Your task to perform on an android device: empty trash in google photos Image 0: 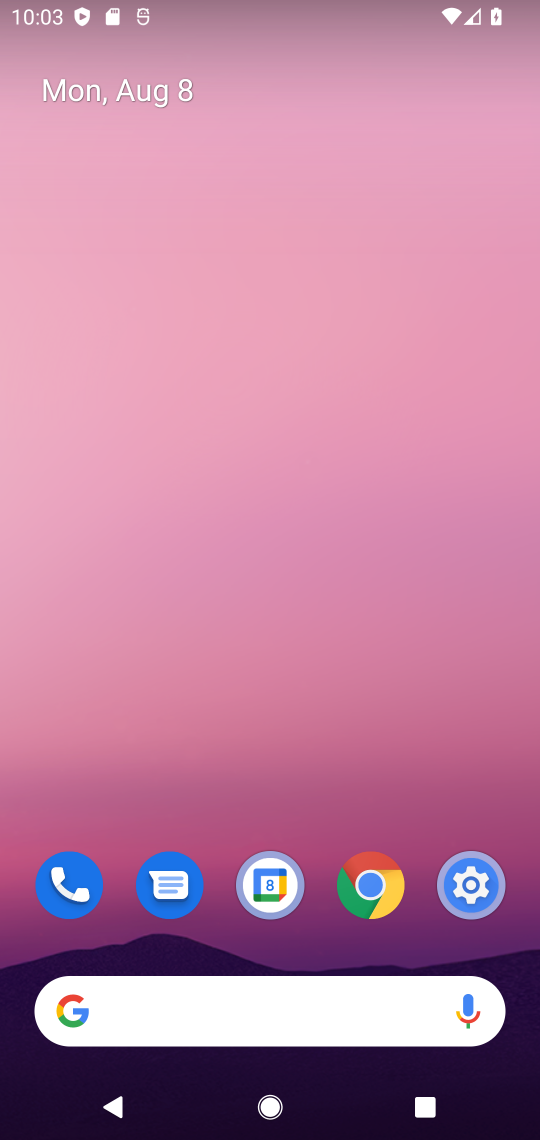
Step 0: drag from (199, 793) to (373, 314)
Your task to perform on an android device: empty trash in google photos Image 1: 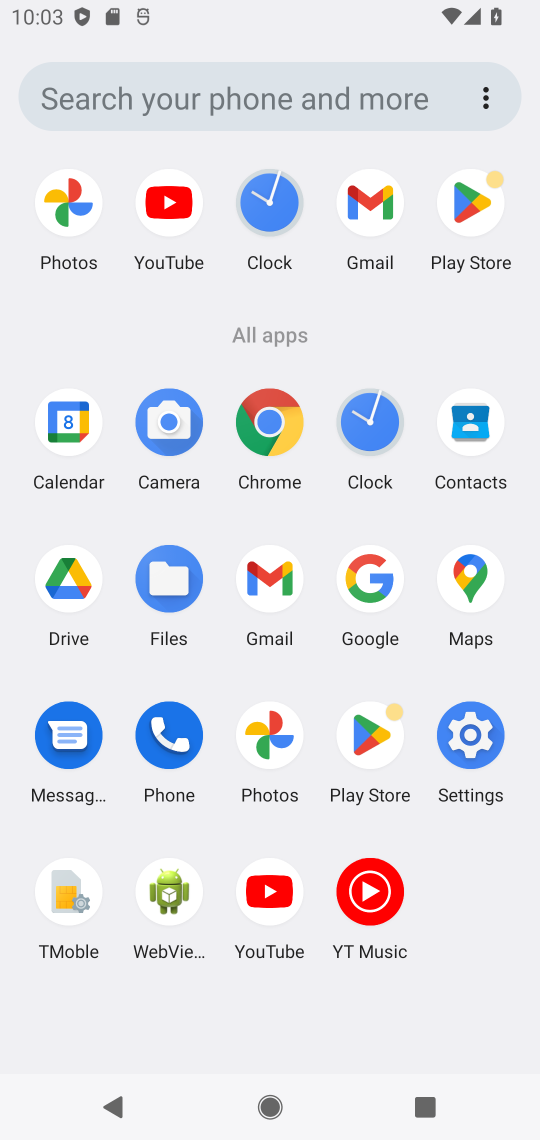
Step 1: click (92, 210)
Your task to perform on an android device: empty trash in google photos Image 2: 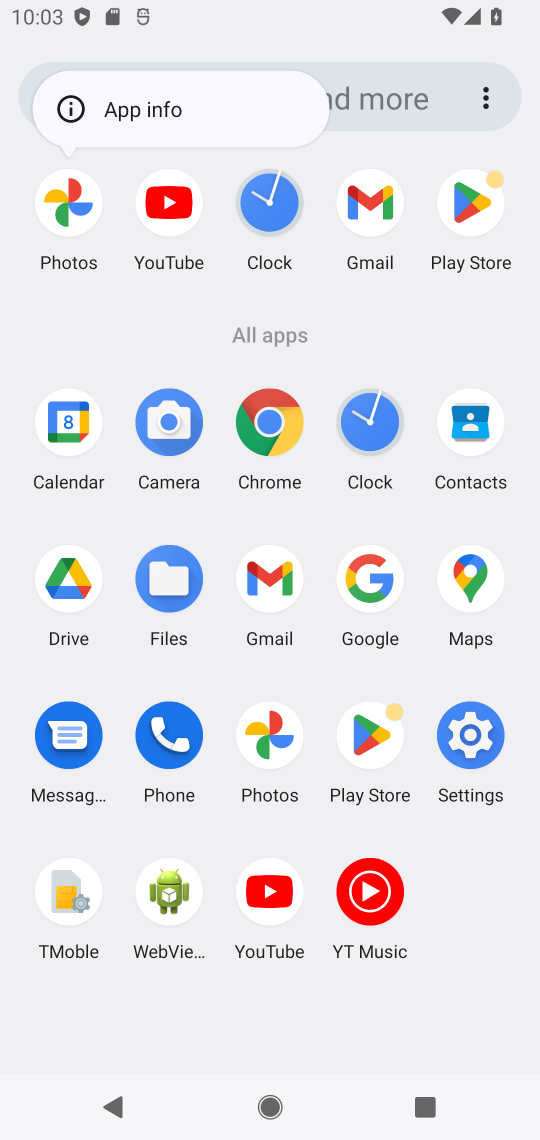
Step 2: click (92, 210)
Your task to perform on an android device: empty trash in google photos Image 3: 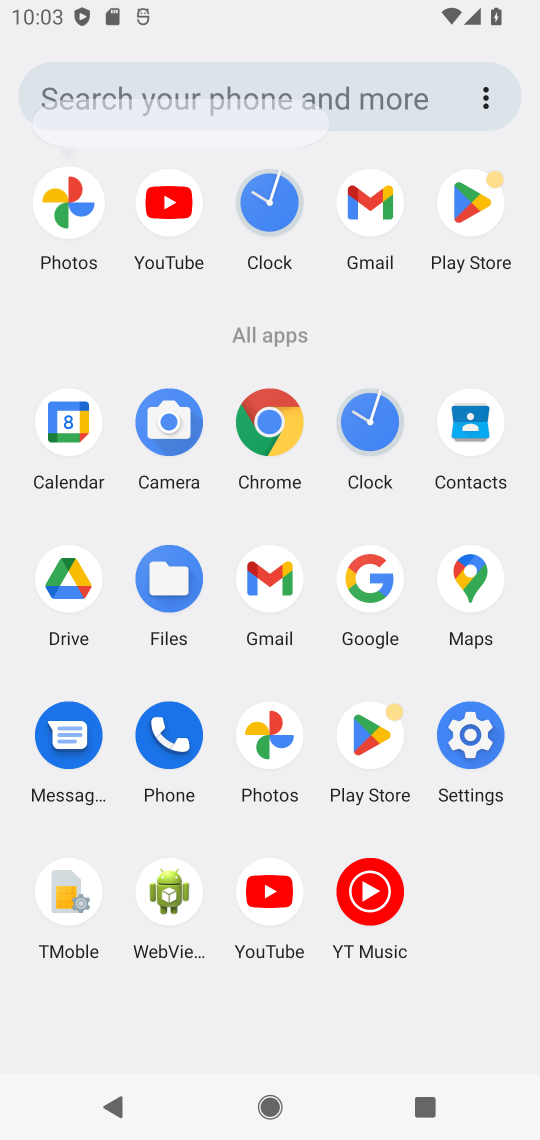
Step 3: click (92, 210)
Your task to perform on an android device: empty trash in google photos Image 4: 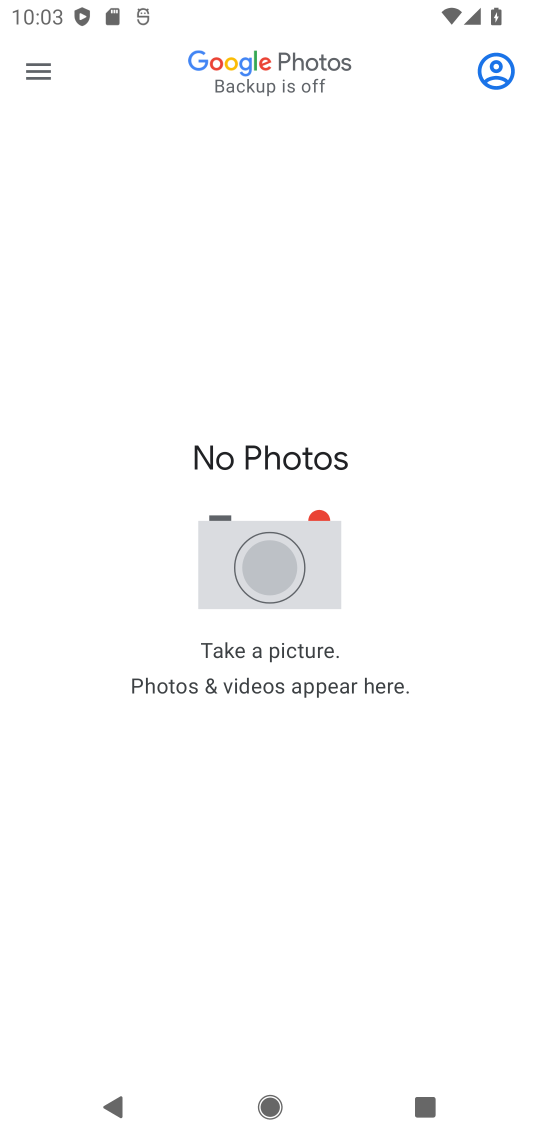
Step 4: click (92, 210)
Your task to perform on an android device: empty trash in google photos Image 5: 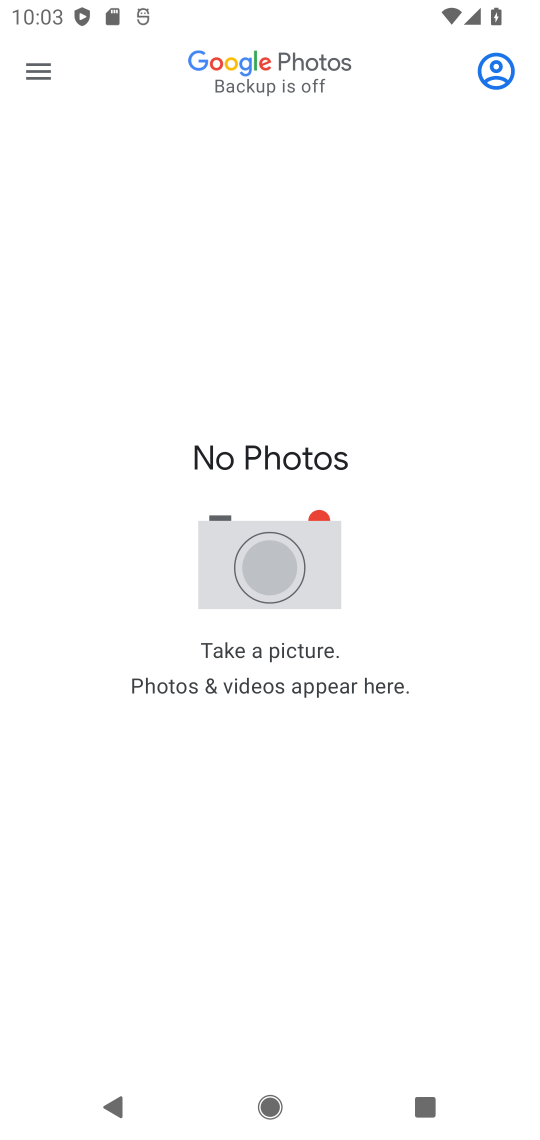
Step 5: click (92, 210)
Your task to perform on an android device: empty trash in google photos Image 6: 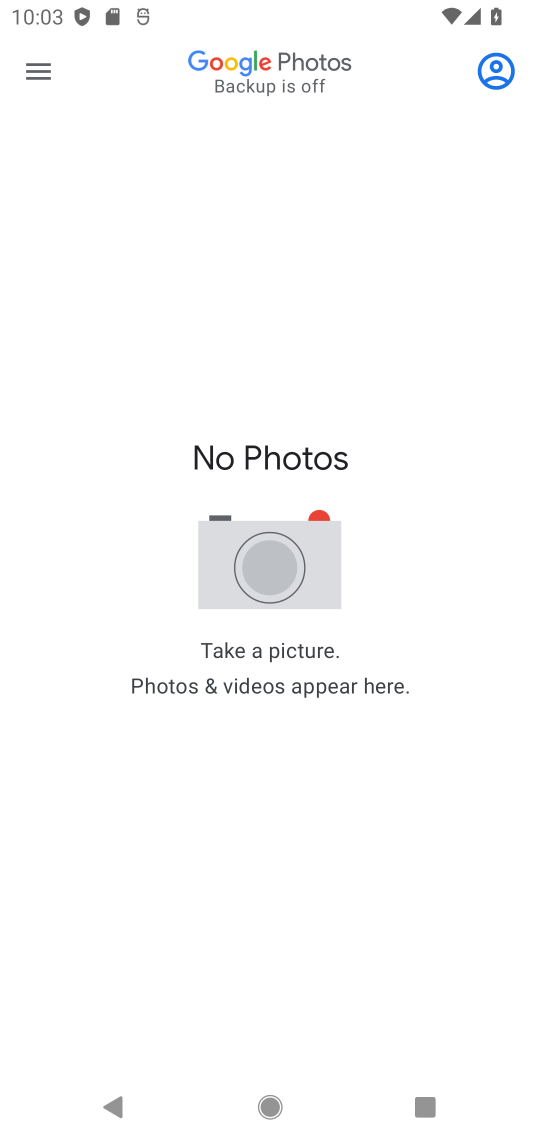
Step 6: click (46, 65)
Your task to perform on an android device: empty trash in google photos Image 7: 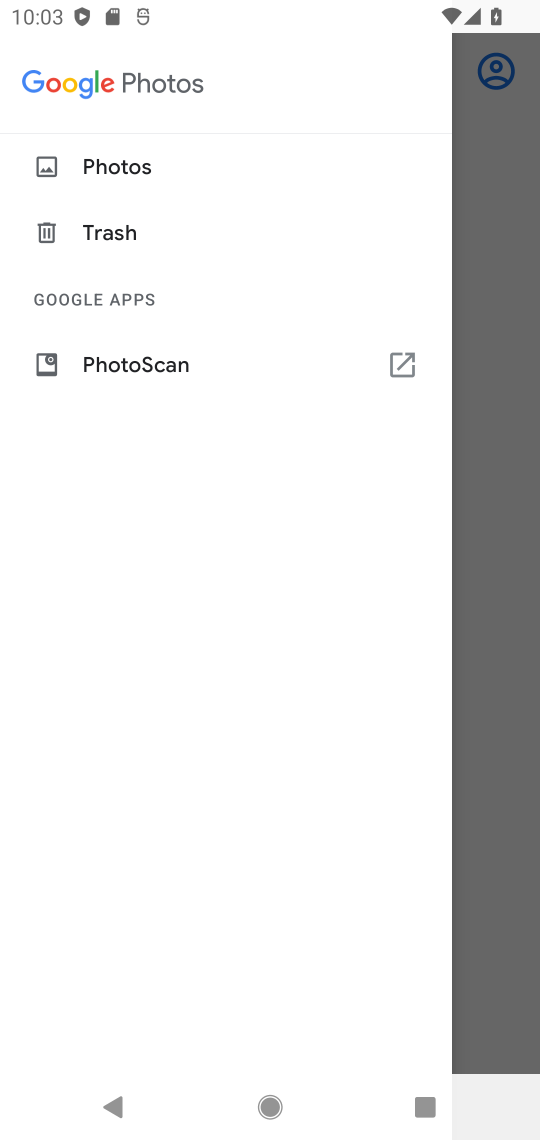
Step 7: click (198, 248)
Your task to perform on an android device: empty trash in google photos Image 8: 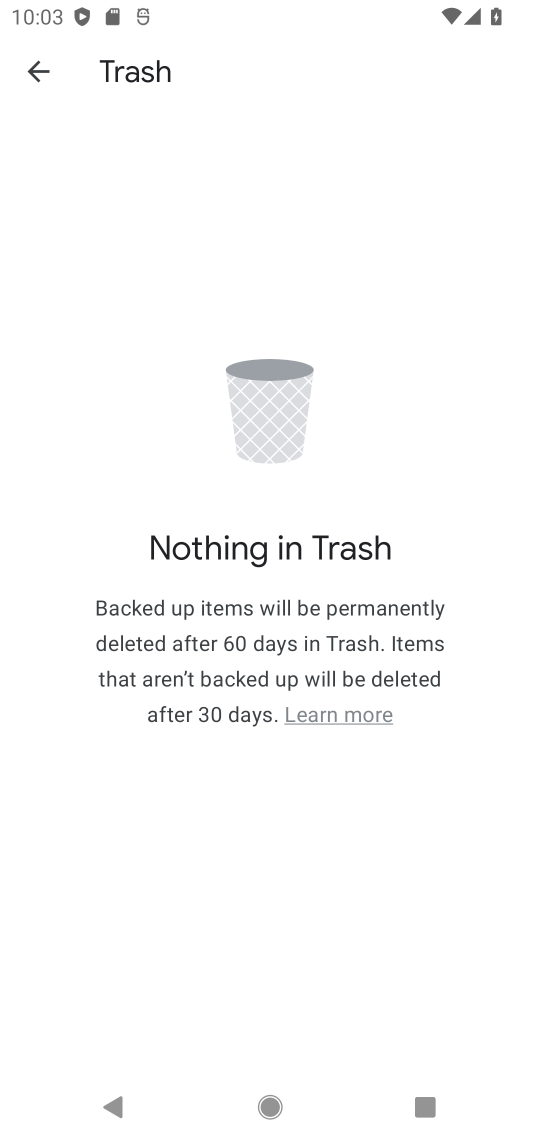
Step 8: task complete